Your task to perform on an android device: Do I have any events tomorrow? Image 0: 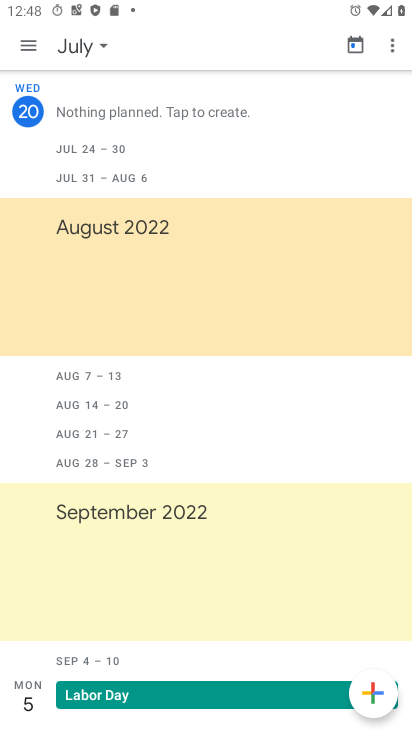
Step 0: press home button
Your task to perform on an android device: Do I have any events tomorrow? Image 1: 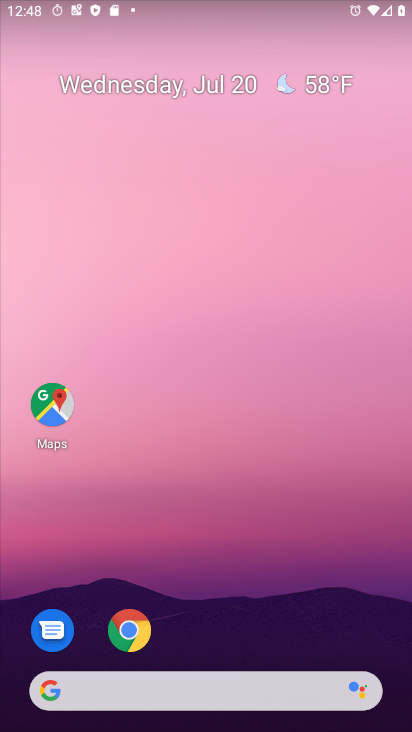
Step 1: drag from (170, 686) to (319, 108)
Your task to perform on an android device: Do I have any events tomorrow? Image 2: 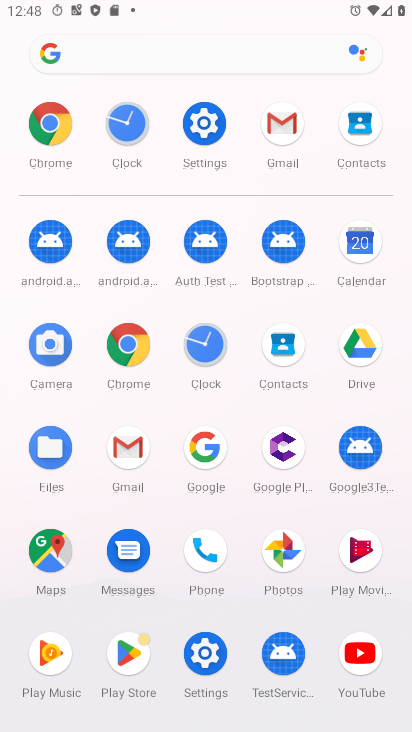
Step 2: click (362, 231)
Your task to perform on an android device: Do I have any events tomorrow? Image 3: 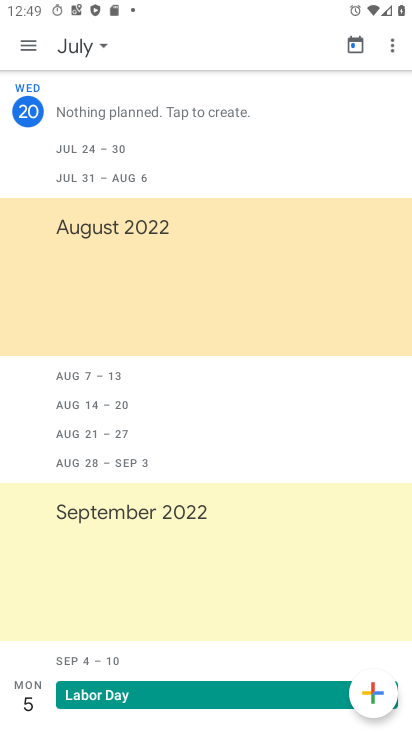
Step 3: click (82, 44)
Your task to perform on an android device: Do I have any events tomorrow? Image 4: 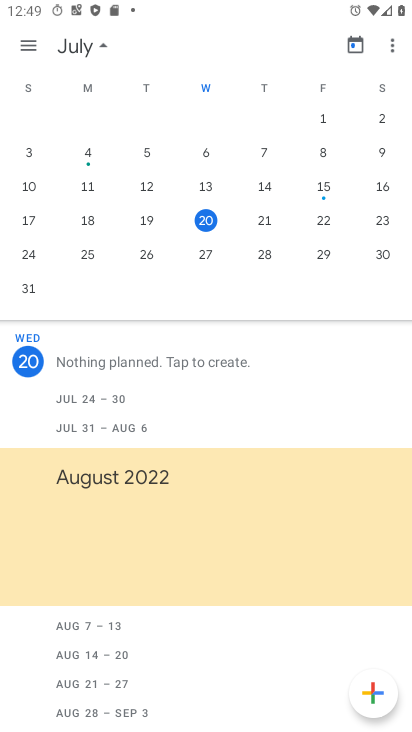
Step 4: click (267, 223)
Your task to perform on an android device: Do I have any events tomorrow? Image 5: 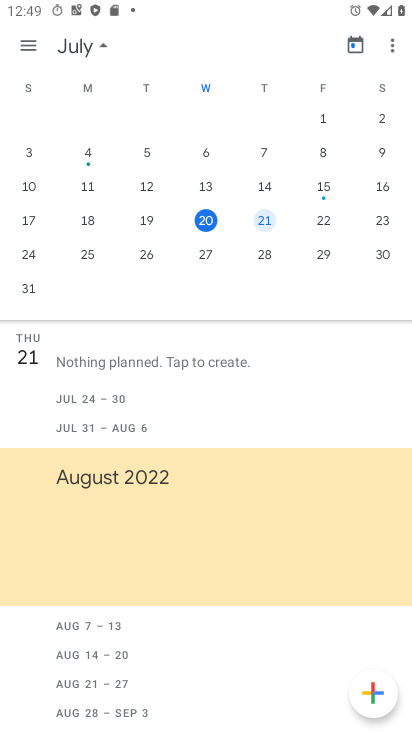
Step 5: click (28, 41)
Your task to perform on an android device: Do I have any events tomorrow? Image 6: 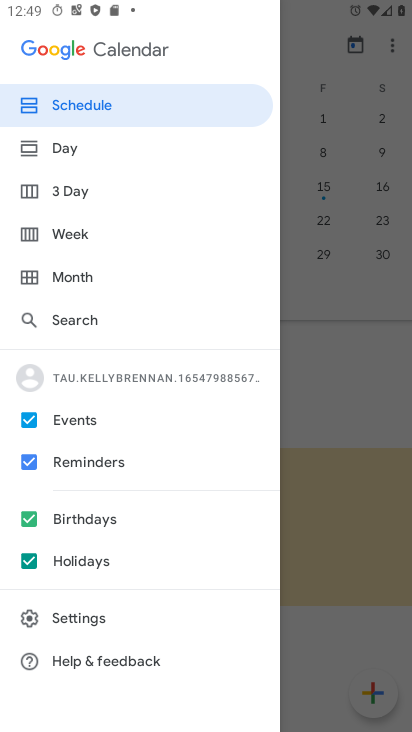
Step 6: click (73, 149)
Your task to perform on an android device: Do I have any events tomorrow? Image 7: 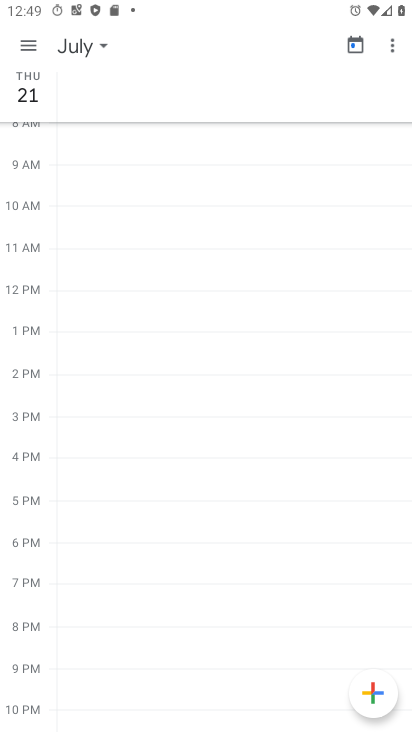
Step 7: click (33, 46)
Your task to perform on an android device: Do I have any events tomorrow? Image 8: 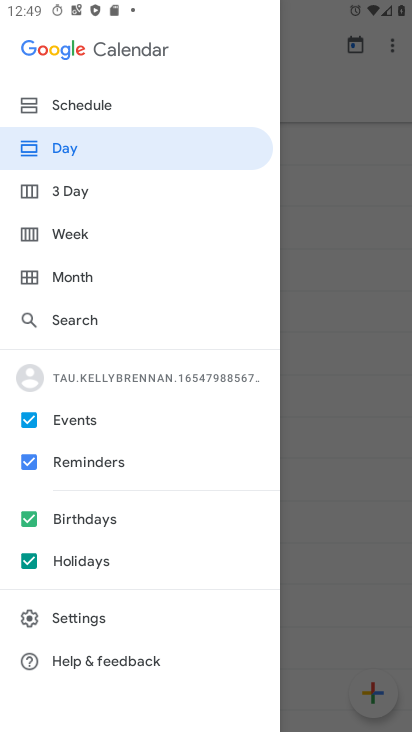
Step 8: click (64, 105)
Your task to perform on an android device: Do I have any events tomorrow? Image 9: 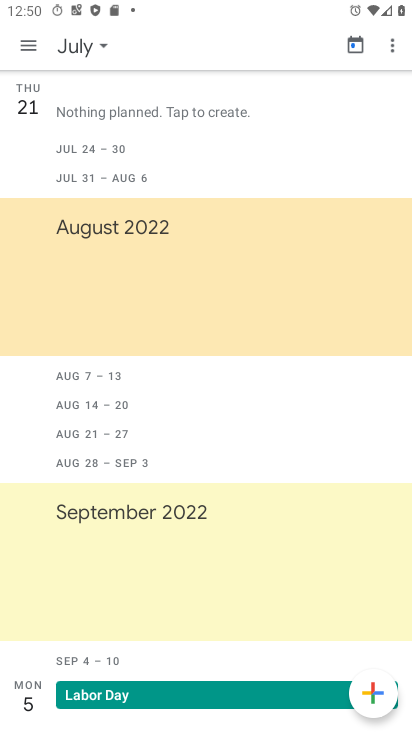
Step 9: task complete